Your task to perform on an android device: Open Google Chrome and open the bookmarks view Image 0: 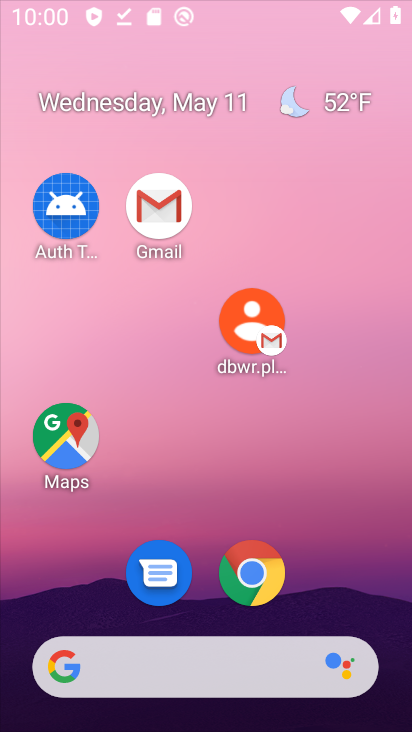
Step 0: drag from (360, 546) to (139, 6)
Your task to perform on an android device: Open Google Chrome and open the bookmarks view Image 1: 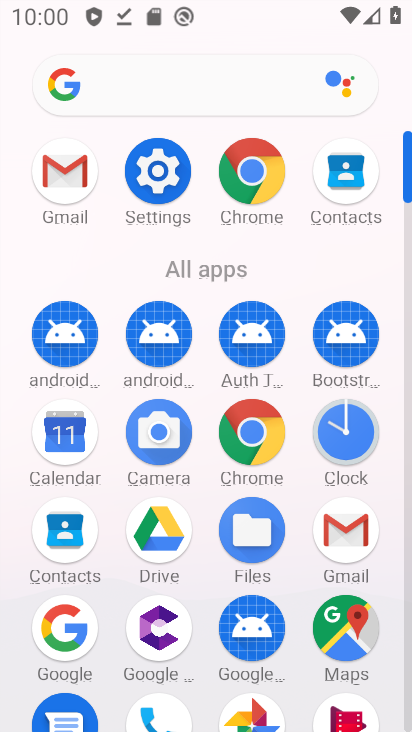
Step 1: click (249, 185)
Your task to perform on an android device: Open Google Chrome and open the bookmarks view Image 2: 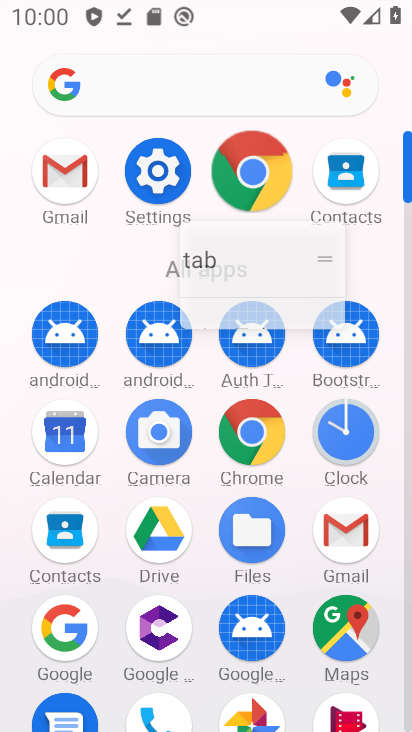
Step 2: click (252, 178)
Your task to perform on an android device: Open Google Chrome and open the bookmarks view Image 3: 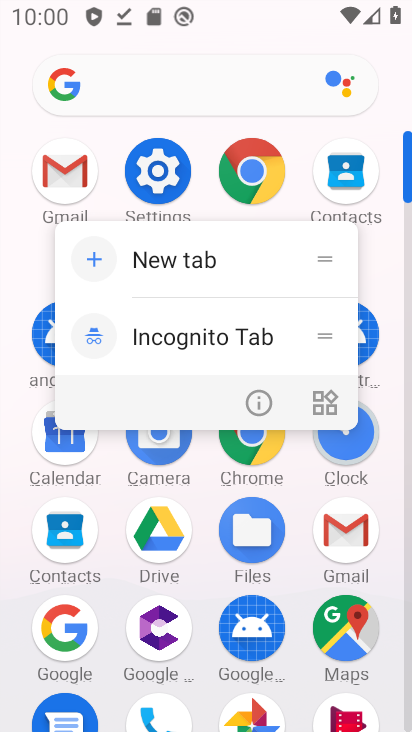
Step 3: click (267, 154)
Your task to perform on an android device: Open Google Chrome and open the bookmarks view Image 4: 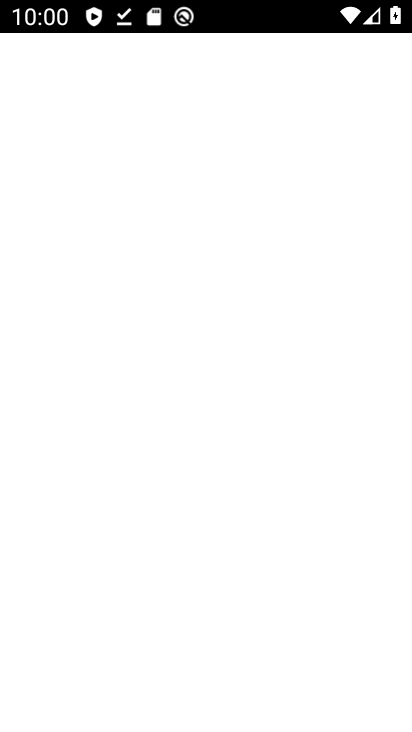
Step 4: click (256, 171)
Your task to perform on an android device: Open Google Chrome and open the bookmarks view Image 5: 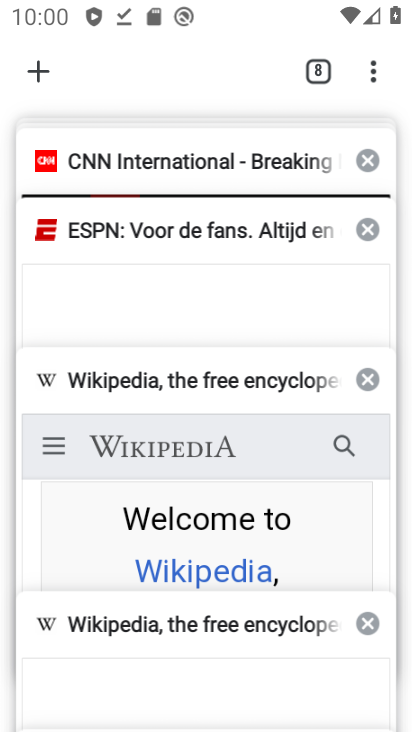
Step 5: click (374, 69)
Your task to perform on an android device: Open Google Chrome and open the bookmarks view Image 6: 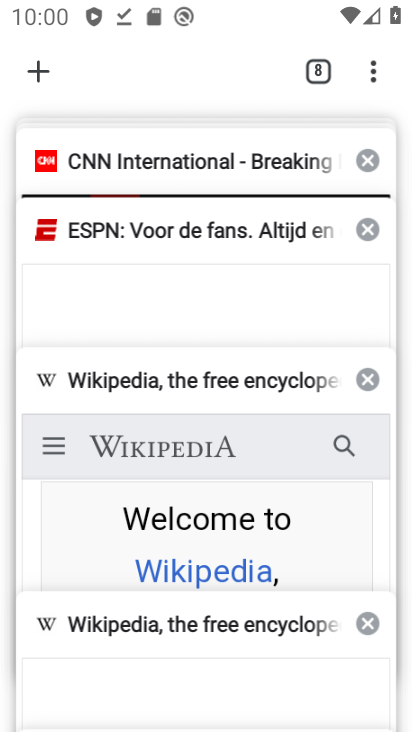
Step 6: click (374, 69)
Your task to perform on an android device: Open Google Chrome and open the bookmarks view Image 7: 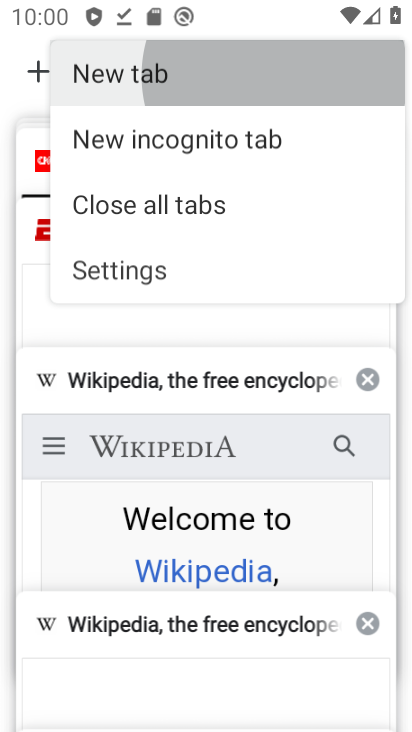
Step 7: click (374, 69)
Your task to perform on an android device: Open Google Chrome and open the bookmarks view Image 8: 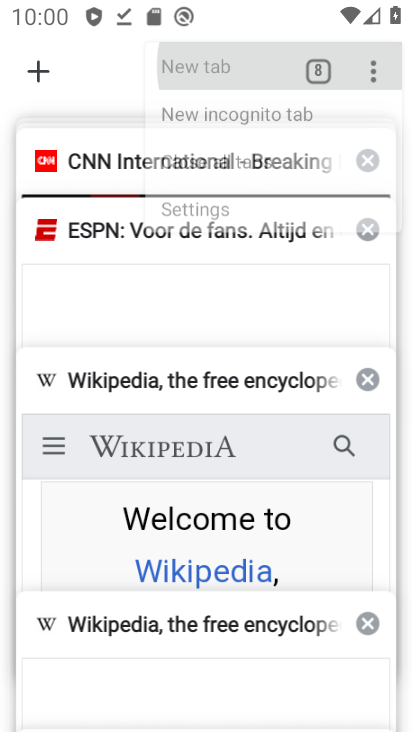
Step 8: drag from (374, 69) to (114, 271)
Your task to perform on an android device: Open Google Chrome and open the bookmarks view Image 9: 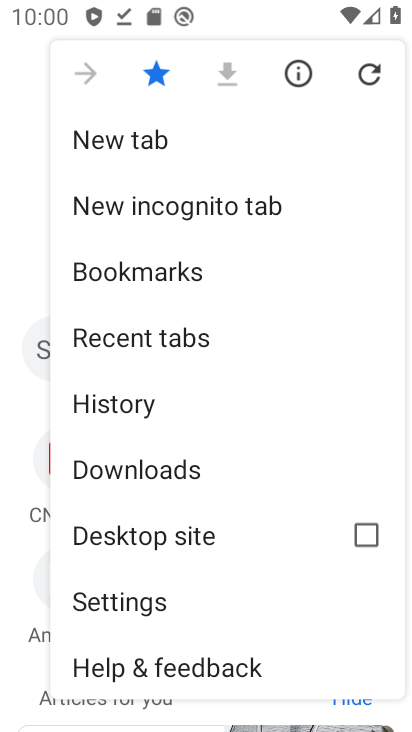
Step 9: click (114, 269)
Your task to perform on an android device: Open Google Chrome and open the bookmarks view Image 10: 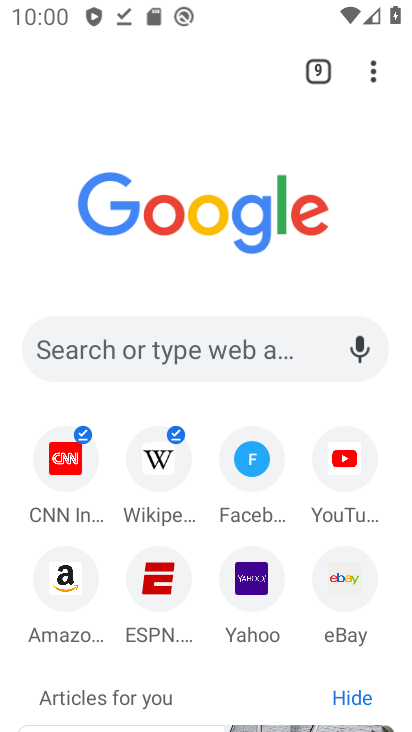
Step 10: click (112, 270)
Your task to perform on an android device: Open Google Chrome and open the bookmarks view Image 11: 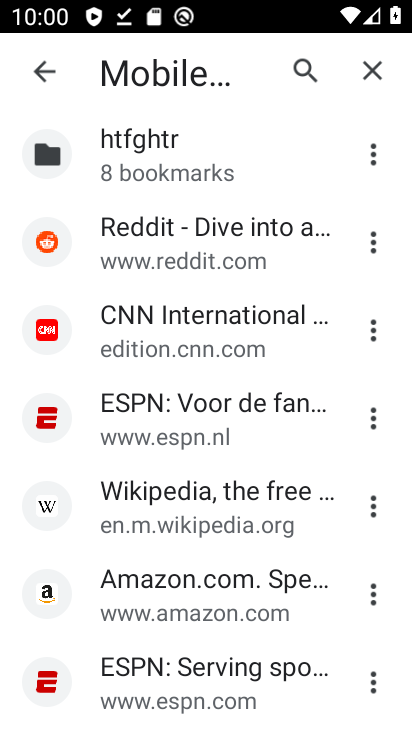
Step 11: click (363, 142)
Your task to perform on an android device: Open Google Chrome and open the bookmarks view Image 12: 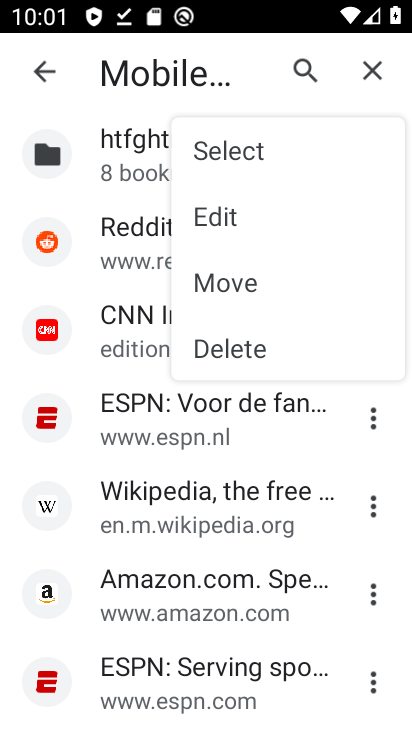
Step 12: task complete